Your task to perform on an android device: Go to network settings Image 0: 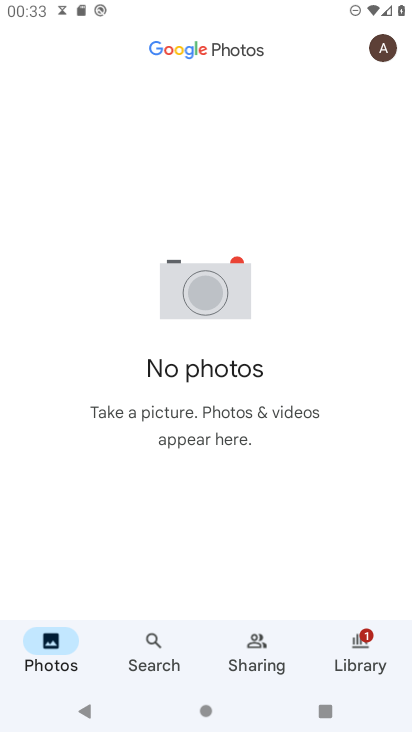
Step 0: press home button
Your task to perform on an android device: Go to network settings Image 1: 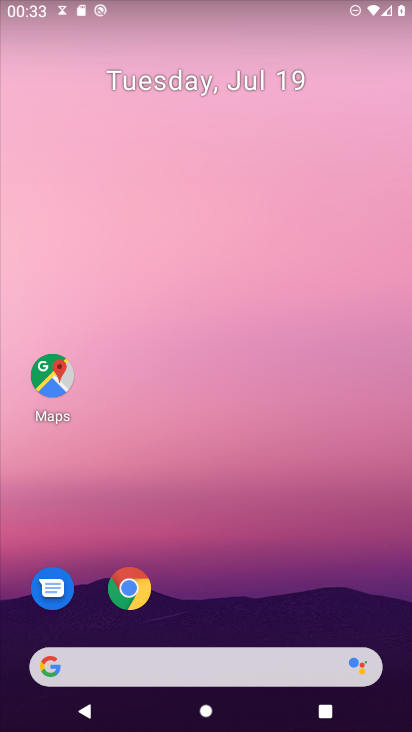
Step 1: drag from (294, 543) to (268, 107)
Your task to perform on an android device: Go to network settings Image 2: 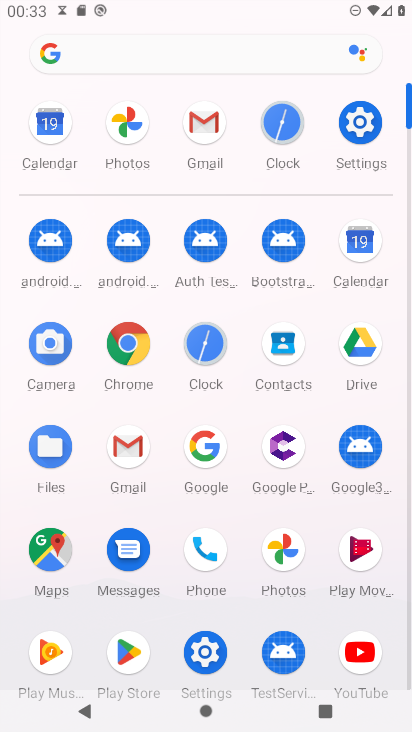
Step 2: click (356, 129)
Your task to perform on an android device: Go to network settings Image 3: 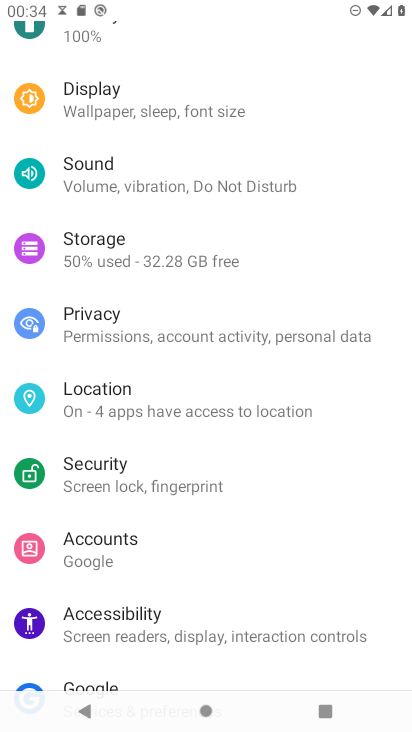
Step 3: drag from (271, 553) to (296, 182)
Your task to perform on an android device: Go to network settings Image 4: 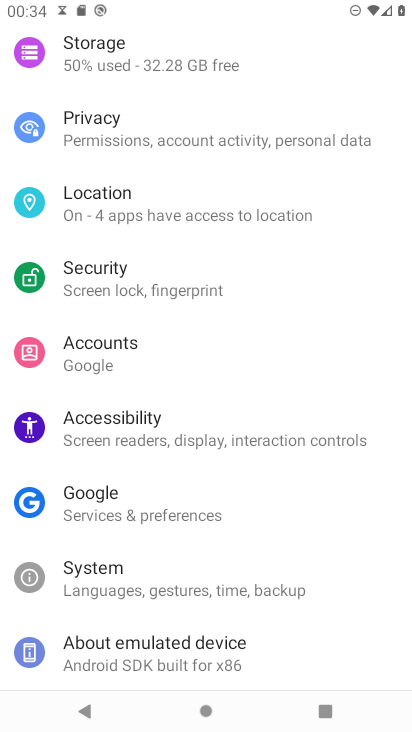
Step 4: drag from (234, 215) to (156, 708)
Your task to perform on an android device: Go to network settings Image 5: 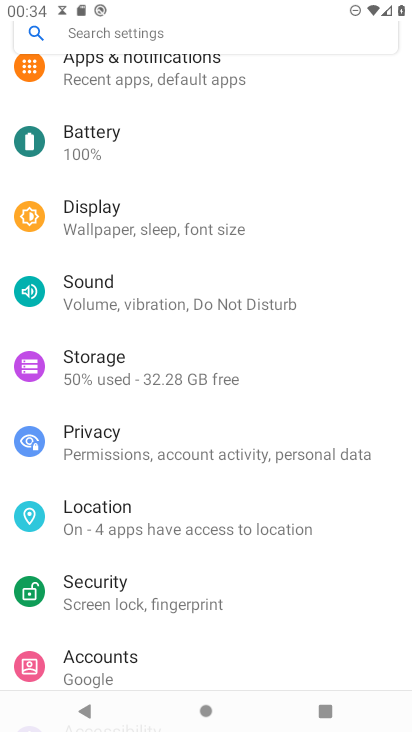
Step 5: drag from (251, 172) to (221, 588)
Your task to perform on an android device: Go to network settings Image 6: 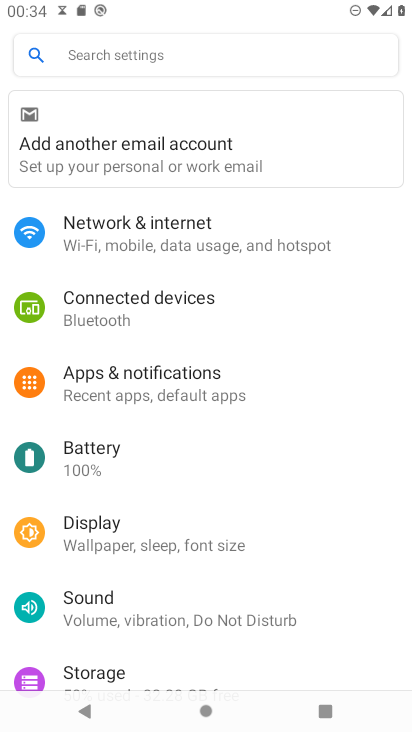
Step 6: click (175, 223)
Your task to perform on an android device: Go to network settings Image 7: 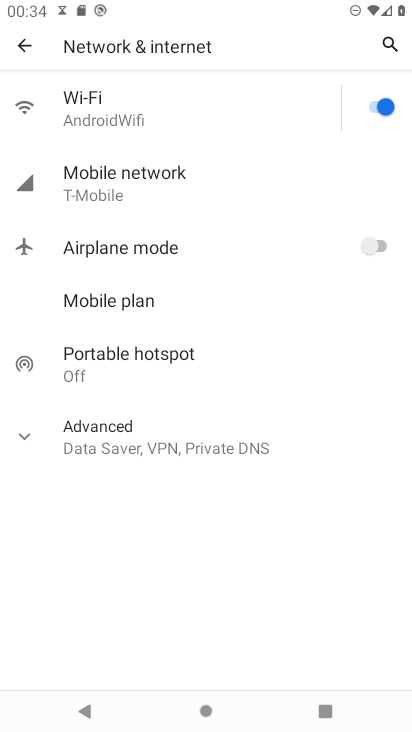
Step 7: task complete